Your task to perform on an android device: toggle airplane mode Image 0: 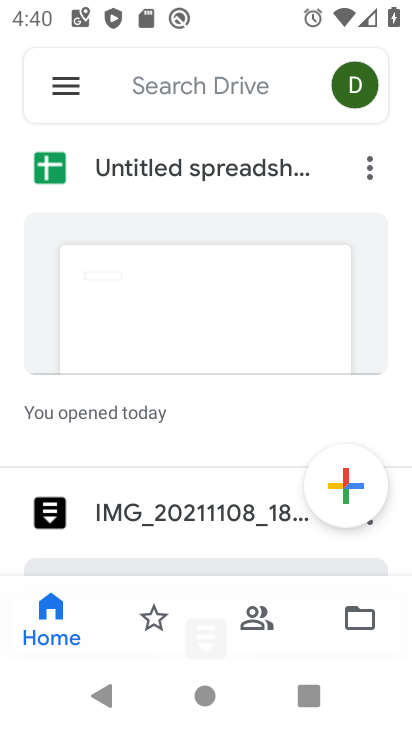
Step 0: press home button
Your task to perform on an android device: toggle airplane mode Image 1: 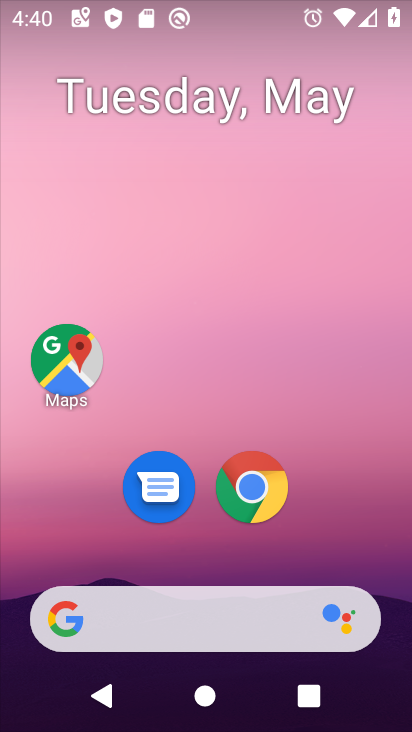
Step 1: drag from (318, 527) to (375, 64)
Your task to perform on an android device: toggle airplane mode Image 2: 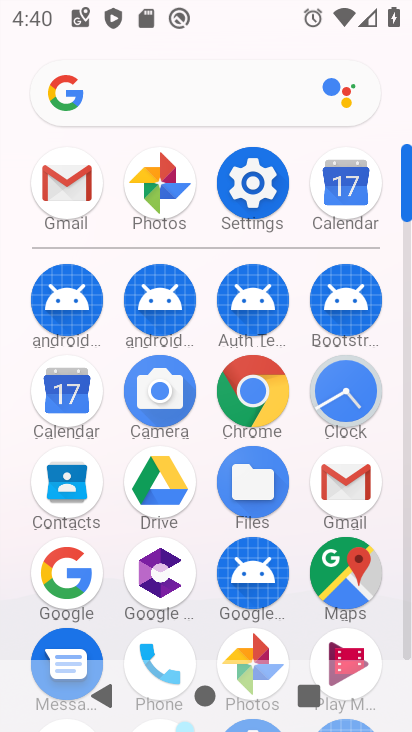
Step 2: click (275, 178)
Your task to perform on an android device: toggle airplane mode Image 3: 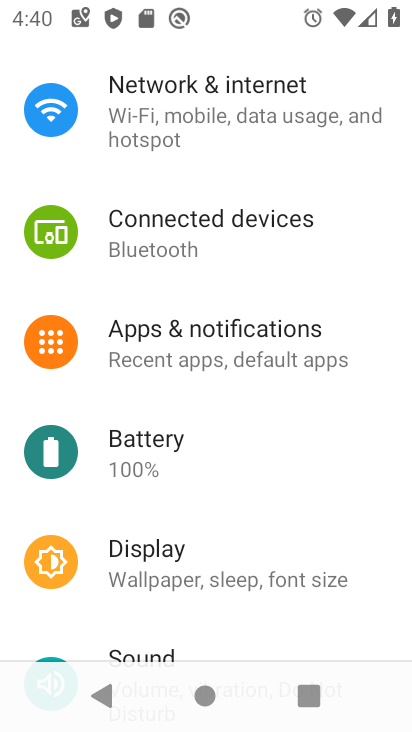
Step 3: drag from (276, 160) to (261, 454)
Your task to perform on an android device: toggle airplane mode Image 4: 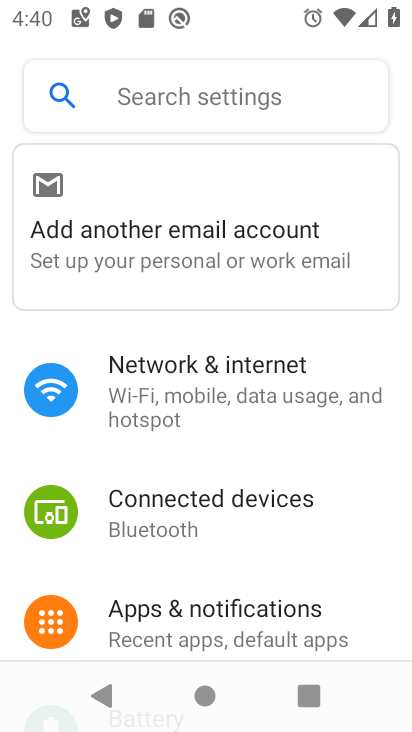
Step 4: click (224, 364)
Your task to perform on an android device: toggle airplane mode Image 5: 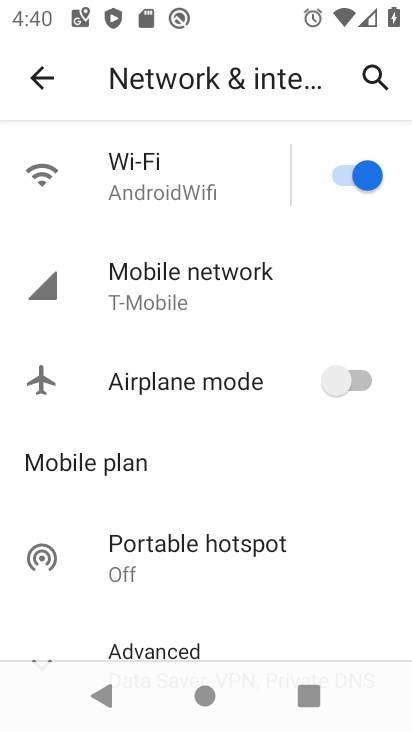
Step 5: click (317, 376)
Your task to perform on an android device: toggle airplane mode Image 6: 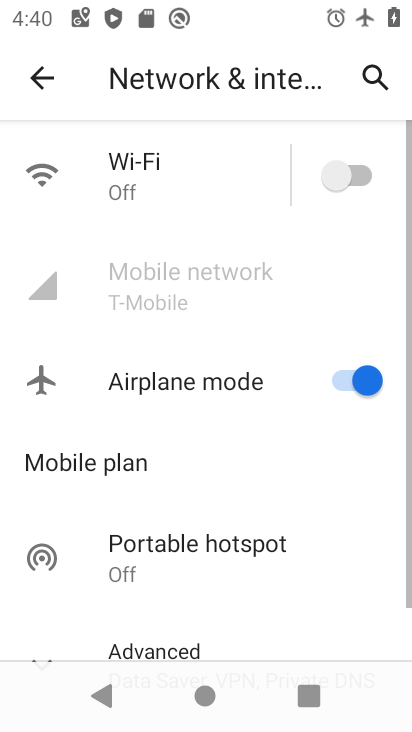
Step 6: task complete